Your task to perform on an android device: Show me recent news Image 0: 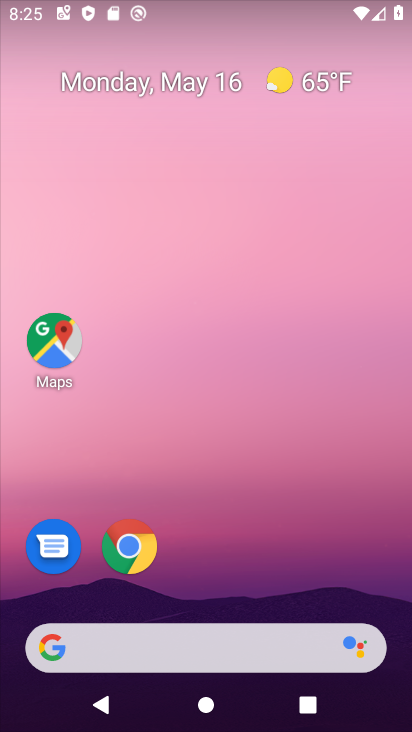
Step 0: drag from (330, 575) to (283, 251)
Your task to perform on an android device: Show me recent news Image 1: 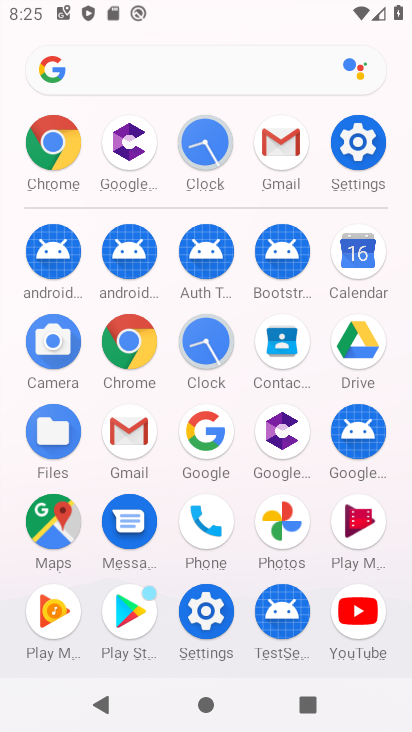
Step 1: click (231, 69)
Your task to perform on an android device: Show me recent news Image 2: 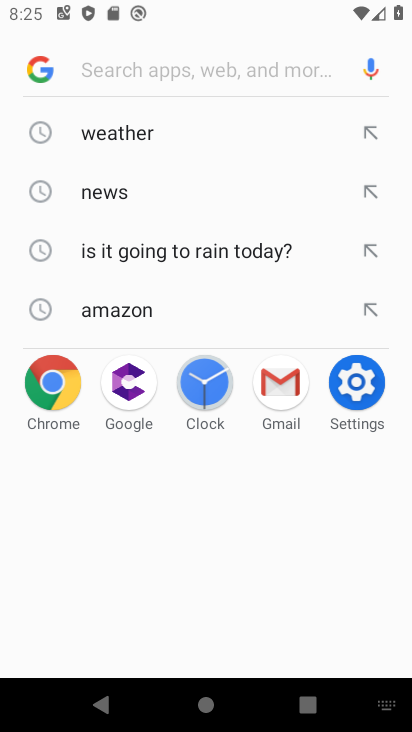
Step 2: click (187, 131)
Your task to perform on an android device: Show me recent news Image 3: 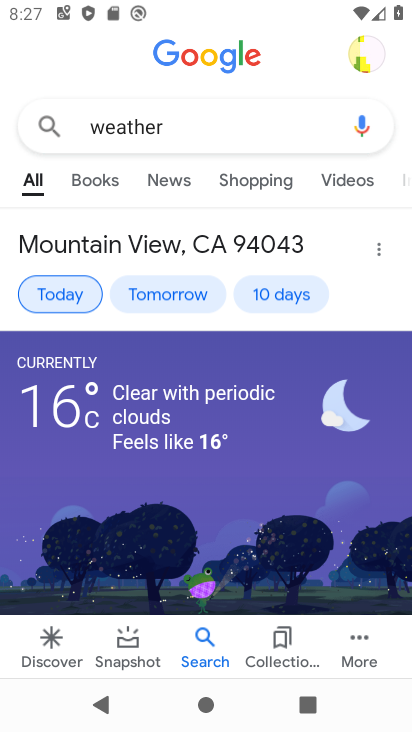
Step 3: click (250, 125)
Your task to perform on an android device: Show me recent news Image 4: 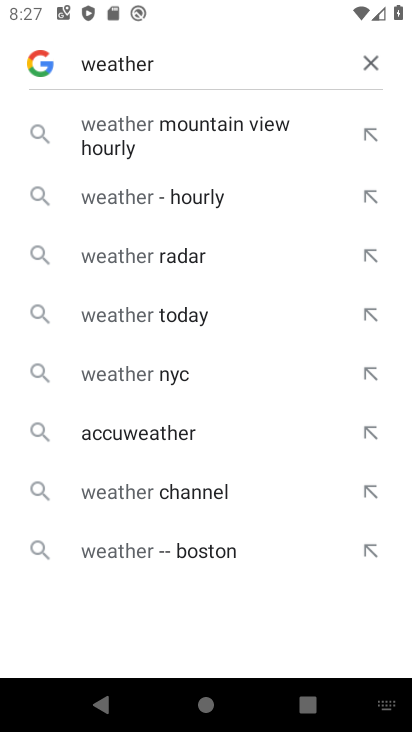
Step 4: click (373, 69)
Your task to perform on an android device: Show me recent news Image 5: 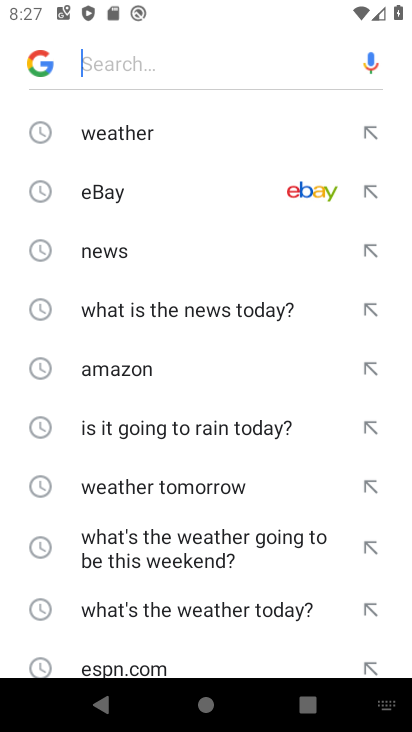
Step 5: click (141, 263)
Your task to perform on an android device: Show me recent news Image 6: 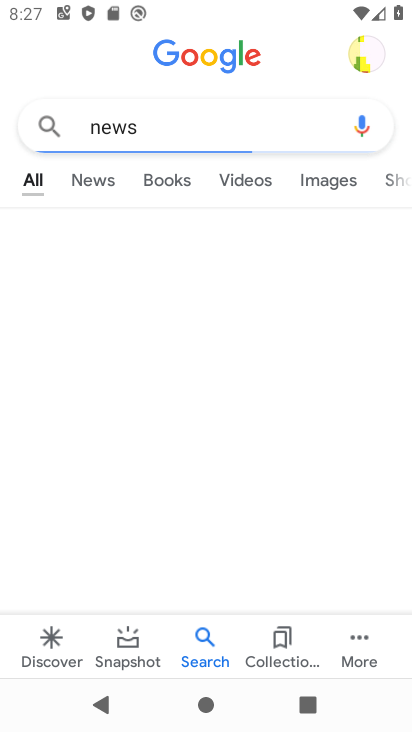
Step 6: task complete